Your task to perform on an android device: Open Google Chrome Image 0: 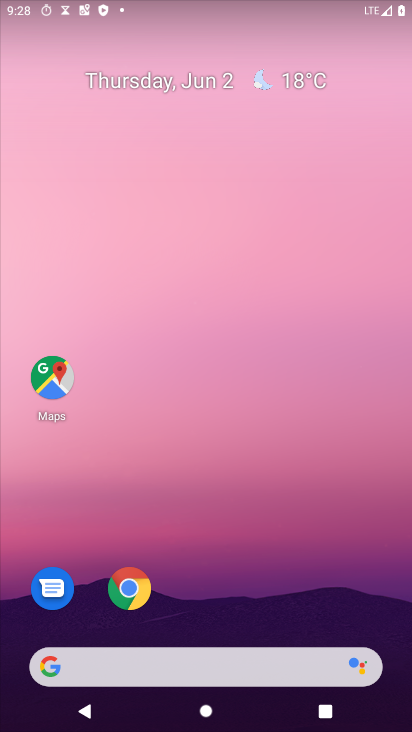
Step 0: click (138, 575)
Your task to perform on an android device: Open Google Chrome Image 1: 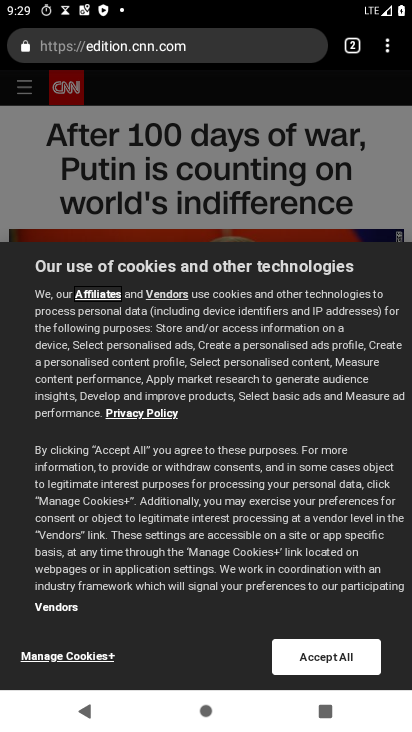
Step 1: task complete